Your task to perform on an android device: Go to Maps Image 0: 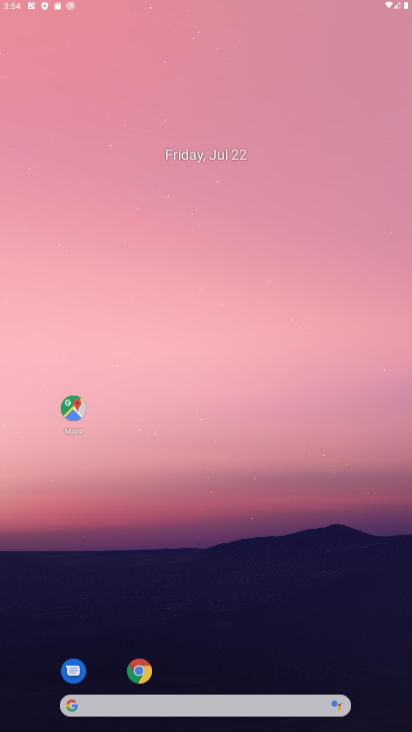
Step 0: press home button
Your task to perform on an android device: Go to Maps Image 1: 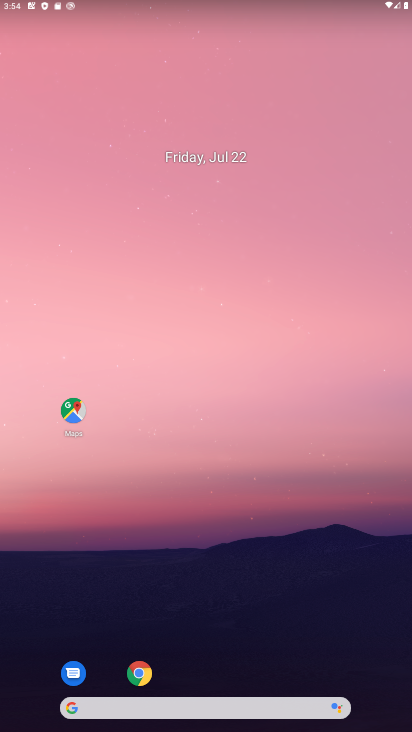
Step 1: click (72, 403)
Your task to perform on an android device: Go to Maps Image 2: 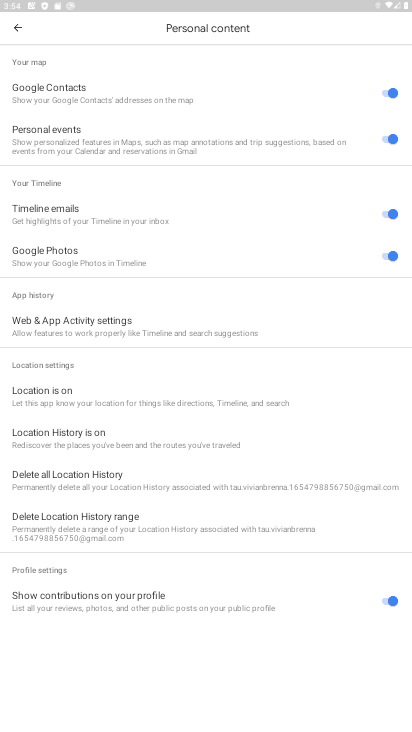
Step 2: click (15, 23)
Your task to perform on an android device: Go to Maps Image 3: 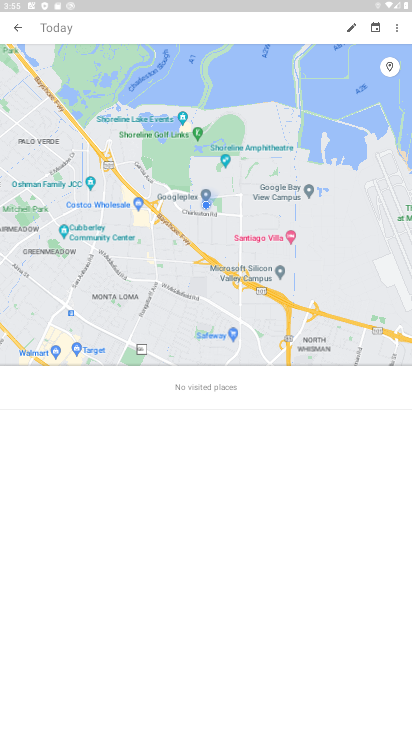
Step 3: click (14, 19)
Your task to perform on an android device: Go to Maps Image 4: 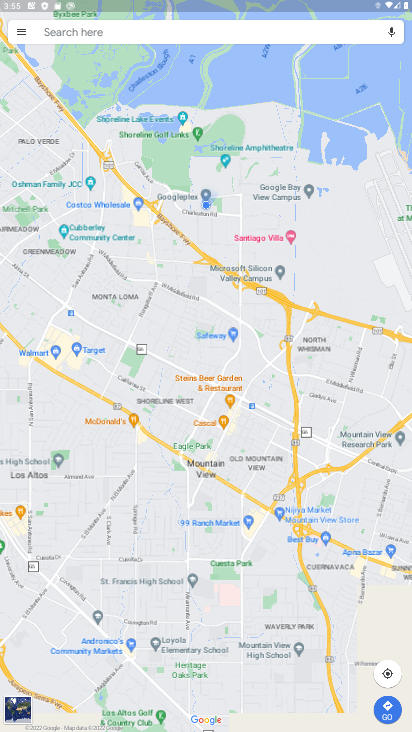
Step 4: task complete